Your task to perform on an android device: turn off notifications in google photos Image 0: 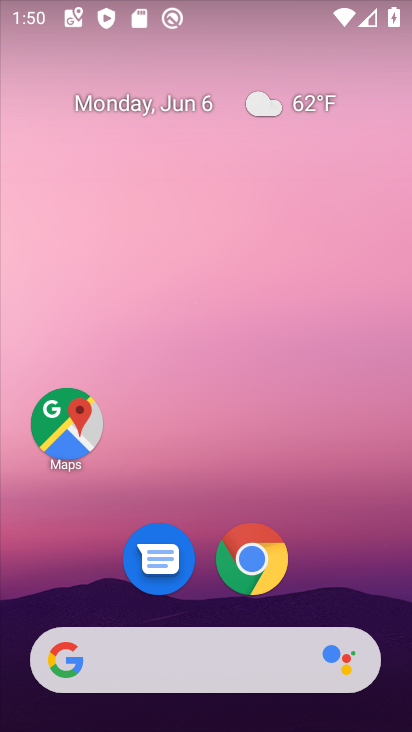
Step 0: press home button
Your task to perform on an android device: turn off notifications in google photos Image 1: 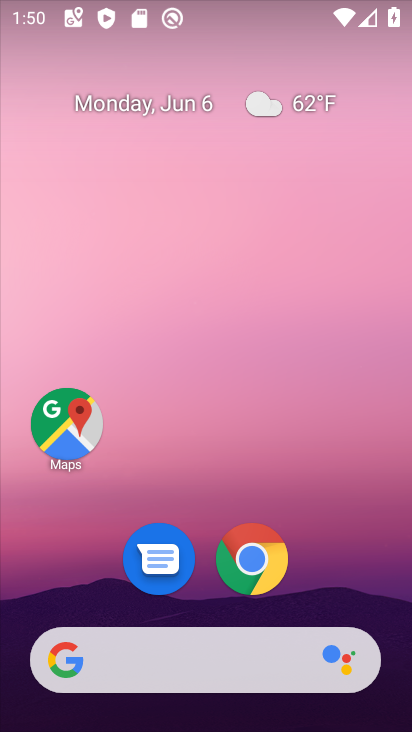
Step 1: drag from (87, 629) to (173, 191)
Your task to perform on an android device: turn off notifications in google photos Image 2: 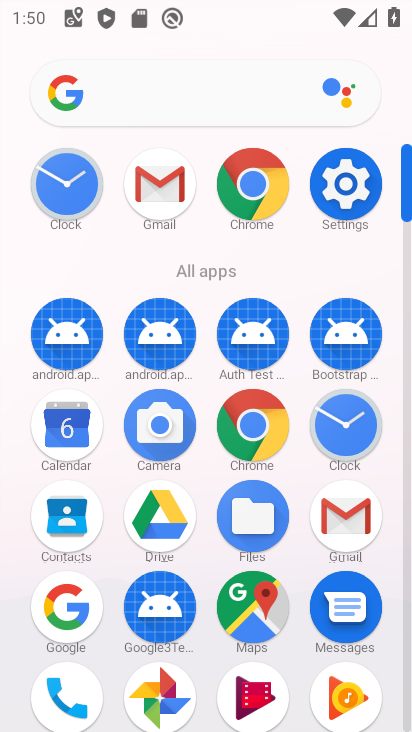
Step 2: drag from (154, 667) to (223, 373)
Your task to perform on an android device: turn off notifications in google photos Image 3: 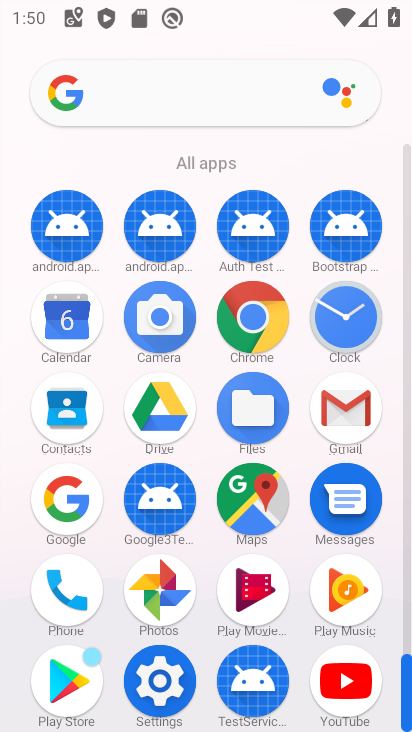
Step 3: click (168, 591)
Your task to perform on an android device: turn off notifications in google photos Image 4: 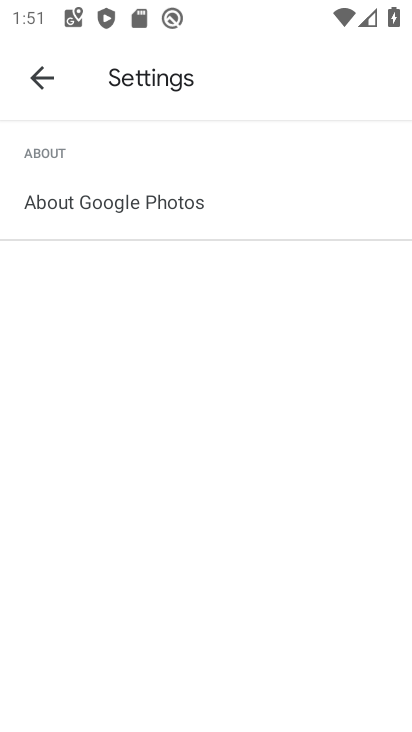
Step 4: click (53, 107)
Your task to perform on an android device: turn off notifications in google photos Image 5: 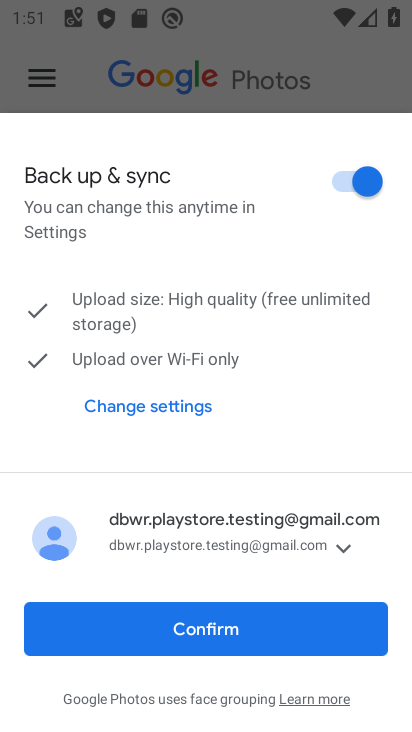
Step 5: click (201, 628)
Your task to perform on an android device: turn off notifications in google photos Image 6: 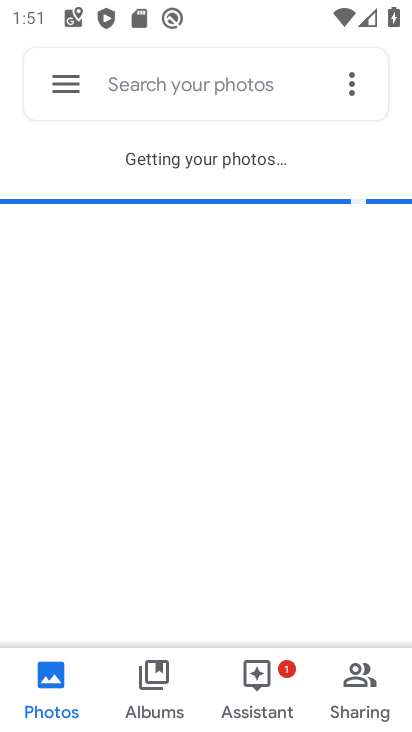
Step 6: click (73, 90)
Your task to perform on an android device: turn off notifications in google photos Image 7: 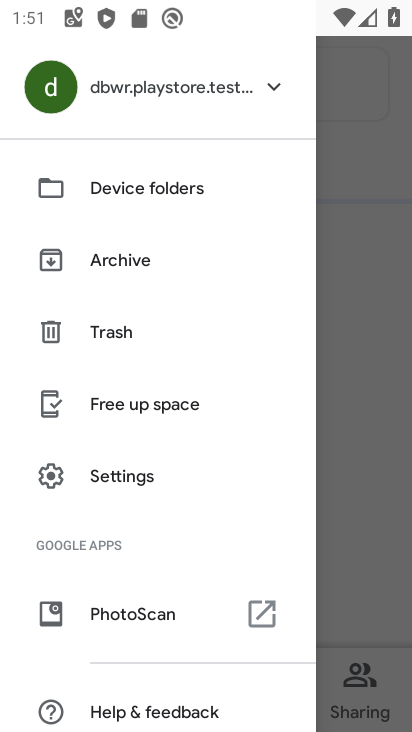
Step 7: click (160, 497)
Your task to perform on an android device: turn off notifications in google photos Image 8: 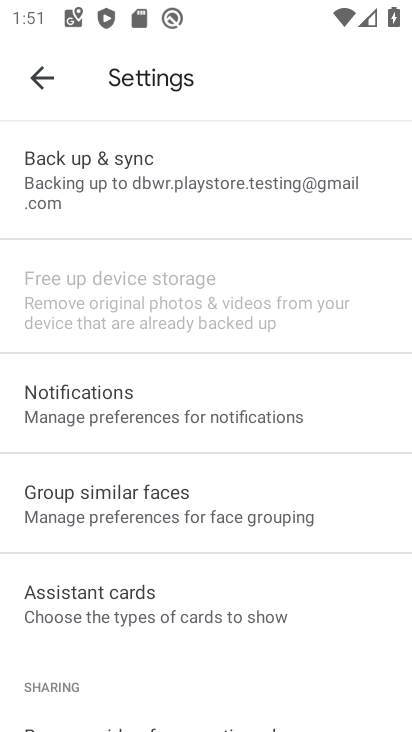
Step 8: drag from (198, 595) to (299, 266)
Your task to perform on an android device: turn off notifications in google photos Image 9: 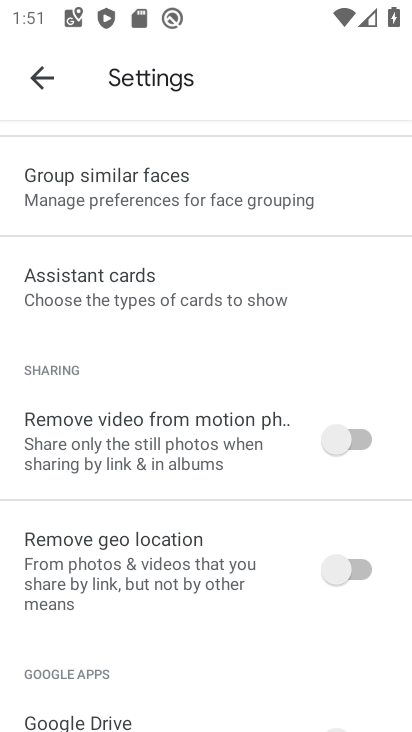
Step 9: drag from (169, 321) to (136, 727)
Your task to perform on an android device: turn off notifications in google photos Image 10: 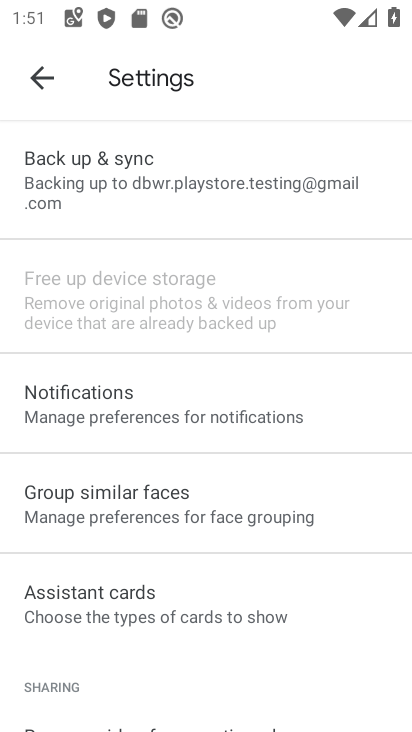
Step 10: click (102, 404)
Your task to perform on an android device: turn off notifications in google photos Image 11: 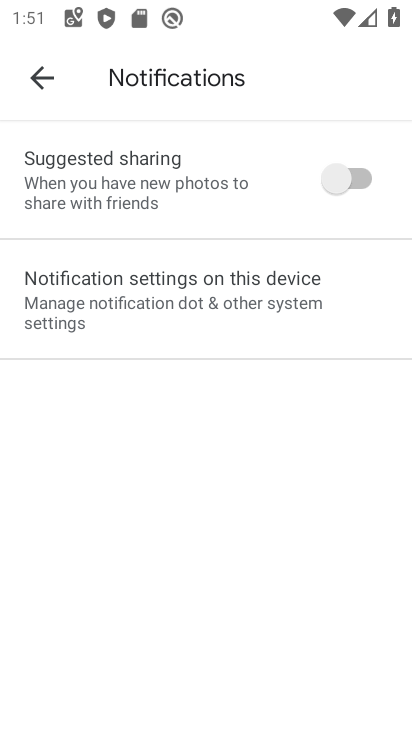
Step 11: click (234, 328)
Your task to perform on an android device: turn off notifications in google photos Image 12: 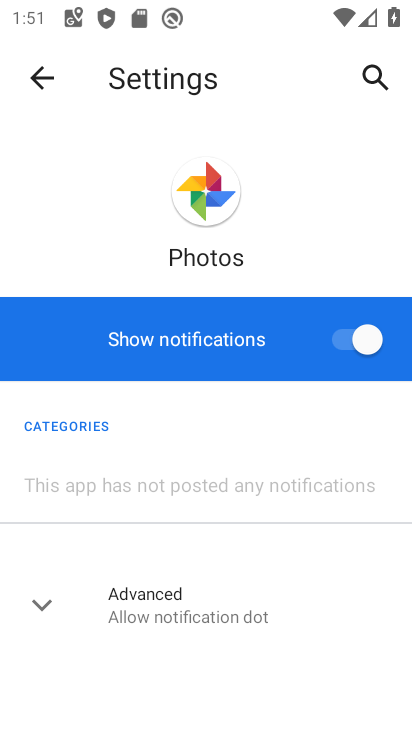
Step 12: click (364, 343)
Your task to perform on an android device: turn off notifications in google photos Image 13: 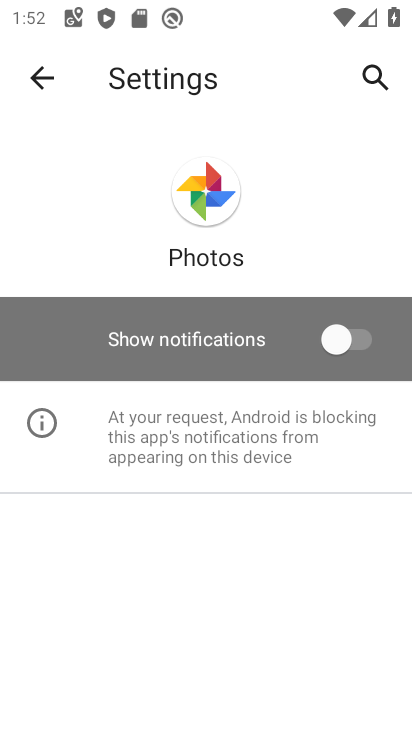
Step 13: task complete